Your task to perform on an android device: Open calendar and show me the fourth week of next month Image 0: 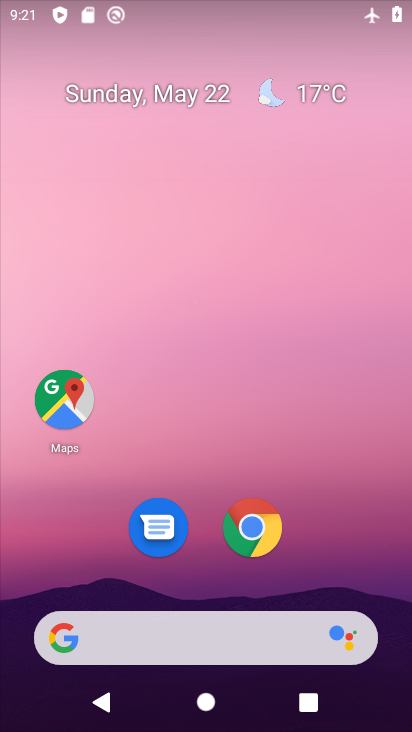
Step 0: drag from (281, 378) to (295, 38)
Your task to perform on an android device: Open calendar and show me the fourth week of next month Image 1: 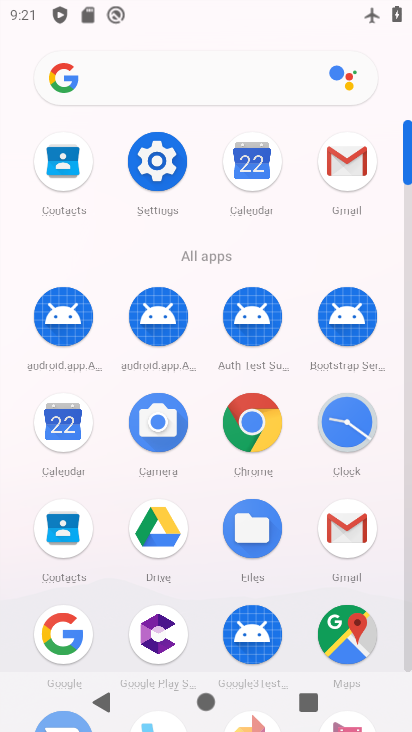
Step 1: drag from (332, 484) to (295, 31)
Your task to perform on an android device: Open calendar and show me the fourth week of next month Image 2: 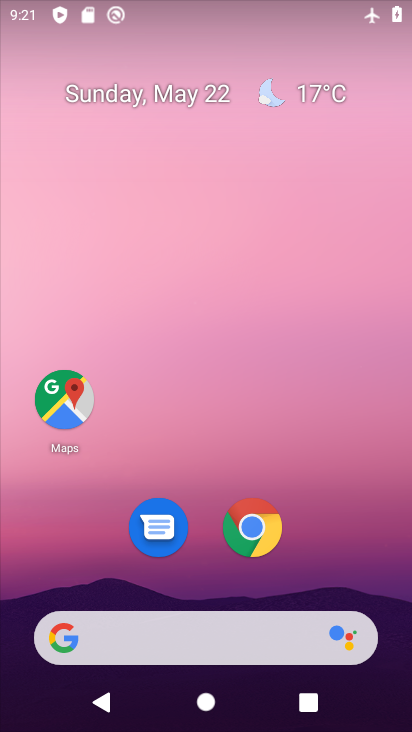
Step 2: drag from (334, 534) to (227, 5)
Your task to perform on an android device: Open calendar and show me the fourth week of next month Image 3: 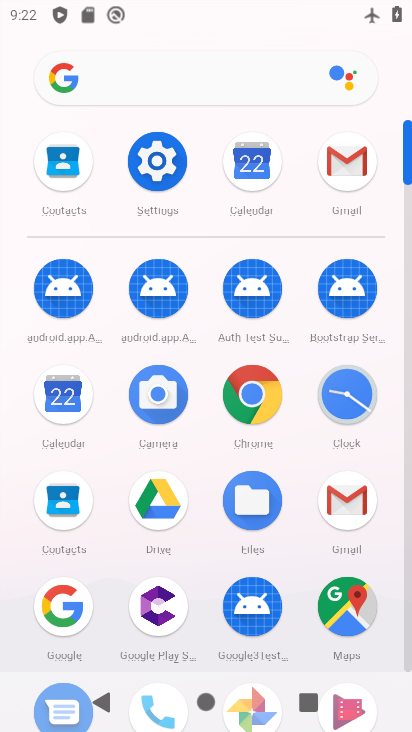
Step 3: click (65, 400)
Your task to perform on an android device: Open calendar and show me the fourth week of next month Image 4: 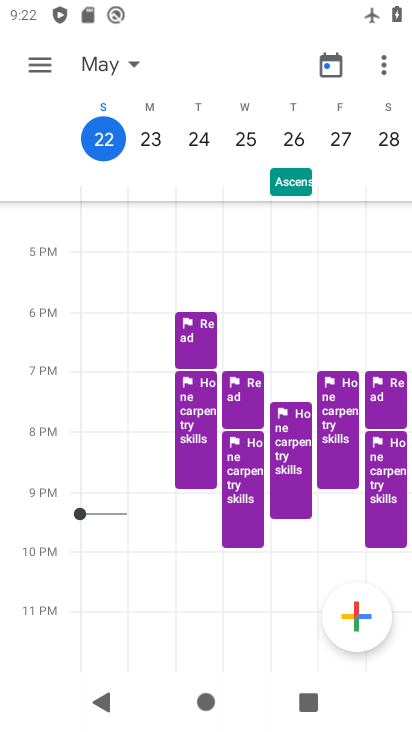
Step 4: click (131, 61)
Your task to perform on an android device: Open calendar and show me the fourth week of next month Image 5: 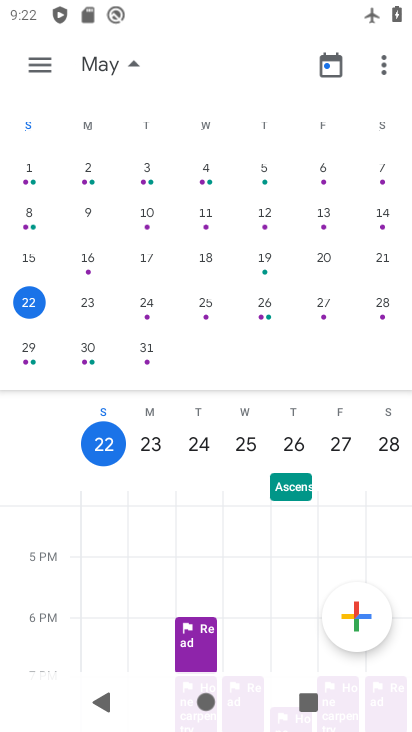
Step 5: drag from (370, 234) to (30, 234)
Your task to perform on an android device: Open calendar and show me the fourth week of next month Image 6: 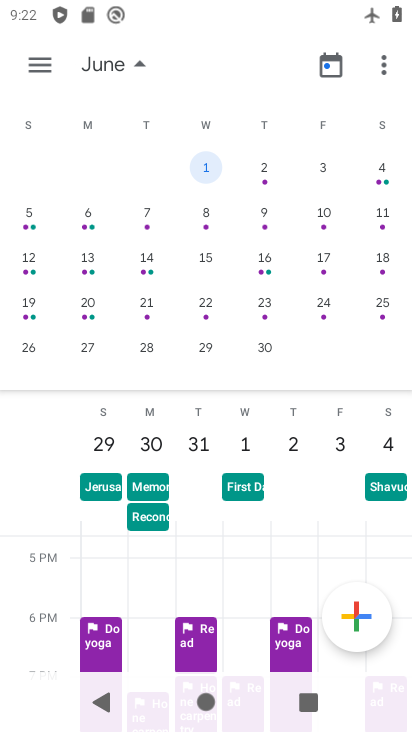
Step 6: click (206, 298)
Your task to perform on an android device: Open calendar and show me the fourth week of next month Image 7: 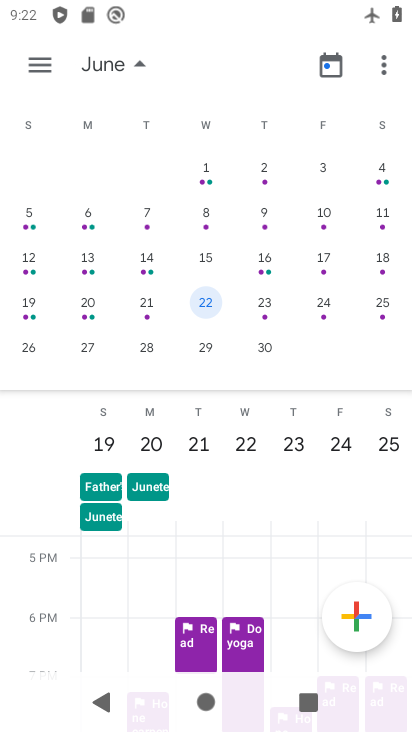
Step 7: task complete